Your task to perform on an android device: Clear the cart on newegg.com. Search for razer blade on newegg.com, select the first entry, add it to the cart, then select checkout. Image 0: 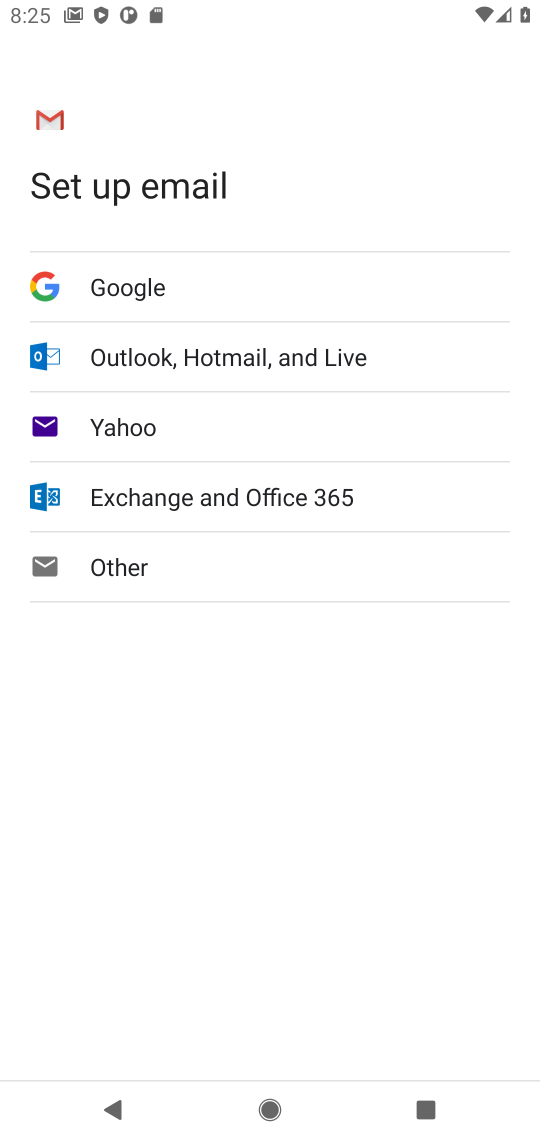
Step 0: press home button
Your task to perform on an android device: Clear the cart on newegg.com. Search for razer blade on newegg.com, select the first entry, add it to the cart, then select checkout. Image 1: 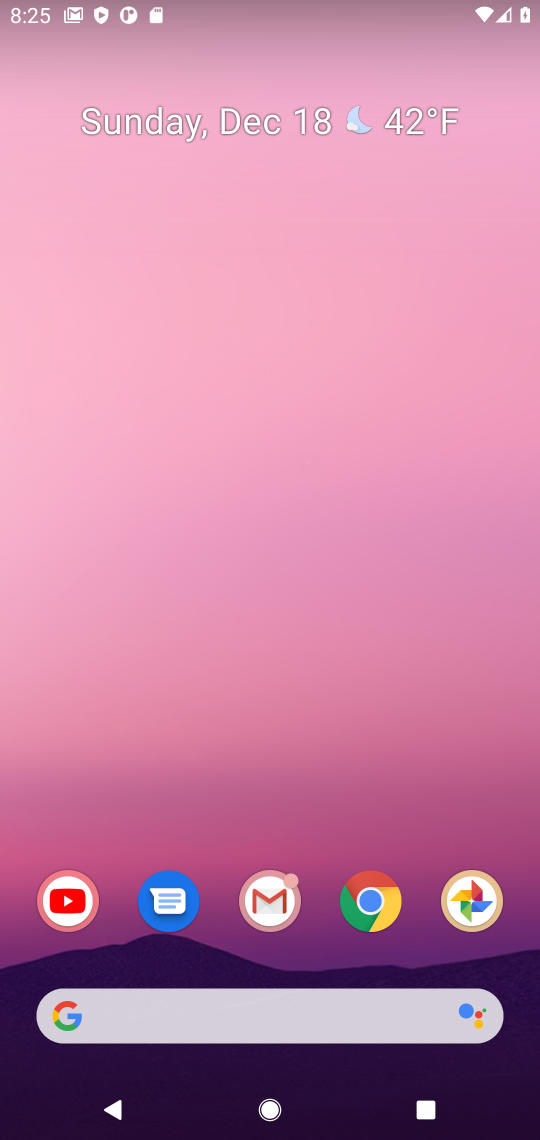
Step 1: click (335, 902)
Your task to perform on an android device: Clear the cart on newegg.com. Search for razer blade on newegg.com, select the first entry, add it to the cart, then select checkout. Image 2: 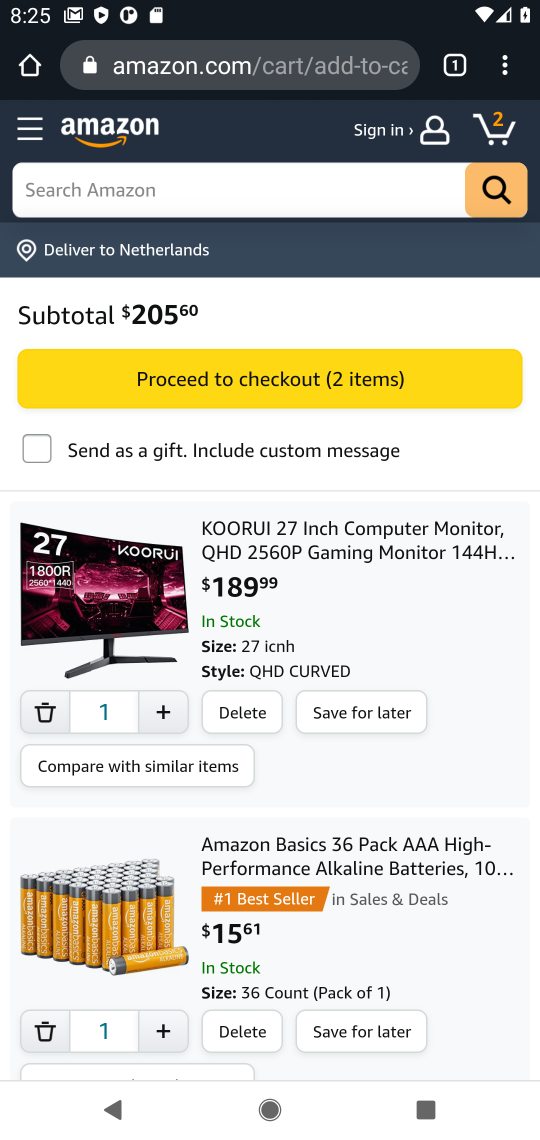
Step 2: click (96, 73)
Your task to perform on an android device: Clear the cart on newegg.com. Search for razer blade on newegg.com, select the first entry, add it to the cart, then select checkout. Image 3: 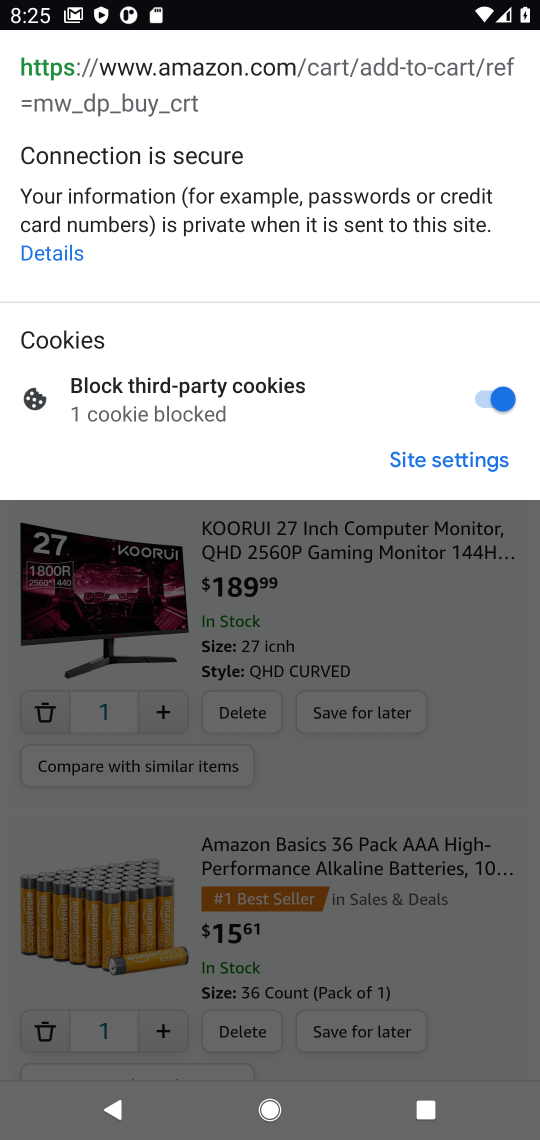
Step 3: type "newegg"
Your task to perform on an android device: Clear the cart on newegg.com. Search for razer blade on newegg.com, select the first entry, add it to the cart, then select checkout. Image 4: 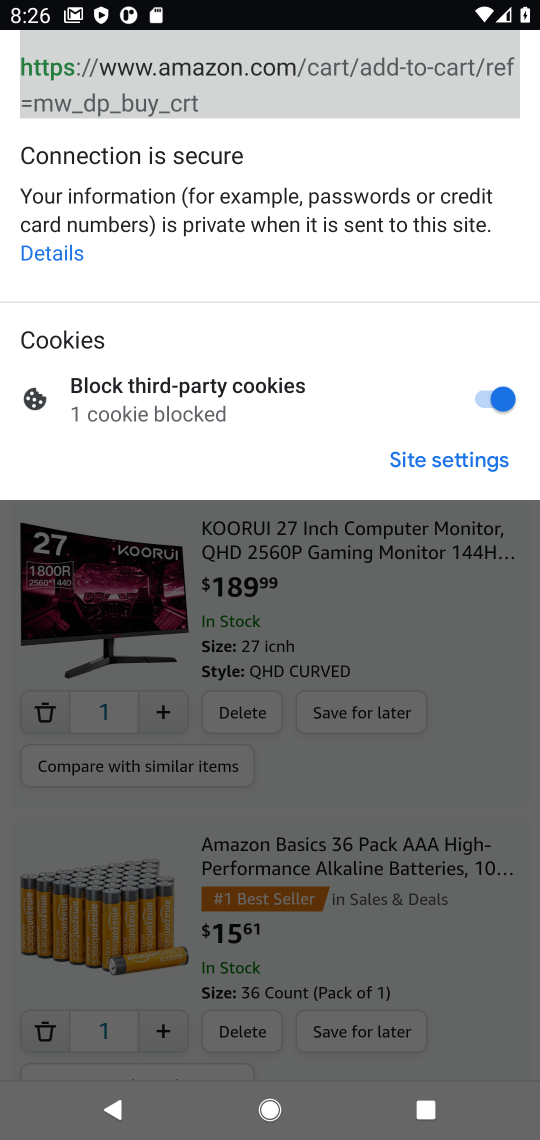
Step 4: press back button
Your task to perform on an android device: Clear the cart on newegg.com. Search for razer blade on newegg.com, select the first entry, add it to the cart, then select checkout. Image 5: 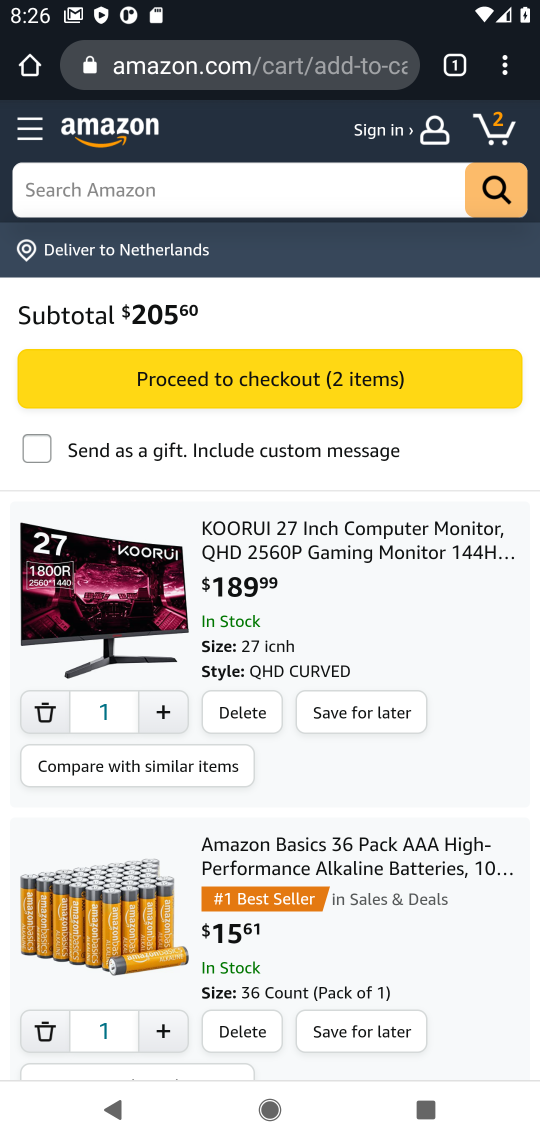
Step 5: click (220, 62)
Your task to perform on an android device: Clear the cart on newegg.com. Search for razer blade on newegg.com, select the first entry, add it to the cart, then select checkout. Image 6: 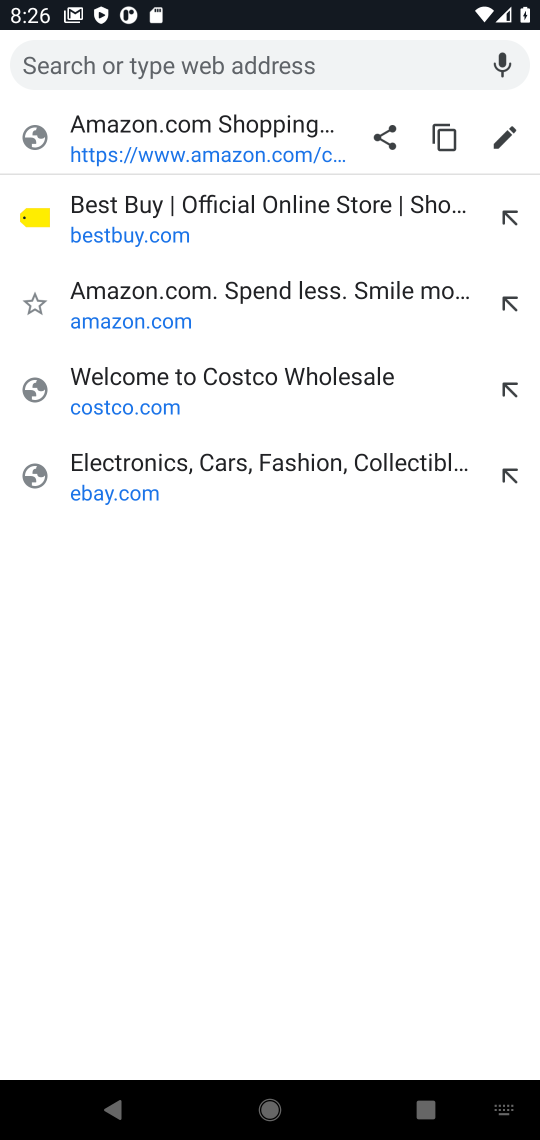
Step 6: type "newegg"
Your task to perform on an android device: Clear the cart on newegg.com. Search for razer blade on newegg.com, select the first entry, add it to the cart, then select checkout. Image 7: 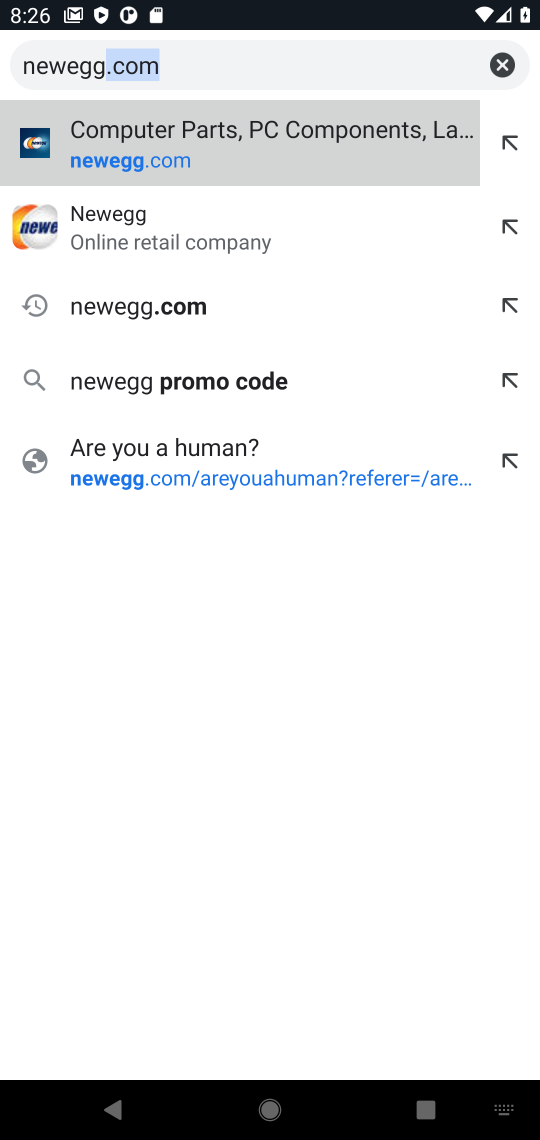
Step 7: click (185, 175)
Your task to perform on an android device: Clear the cart on newegg.com. Search for razer blade on newegg.com, select the first entry, add it to the cart, then select checkout. Image 8: 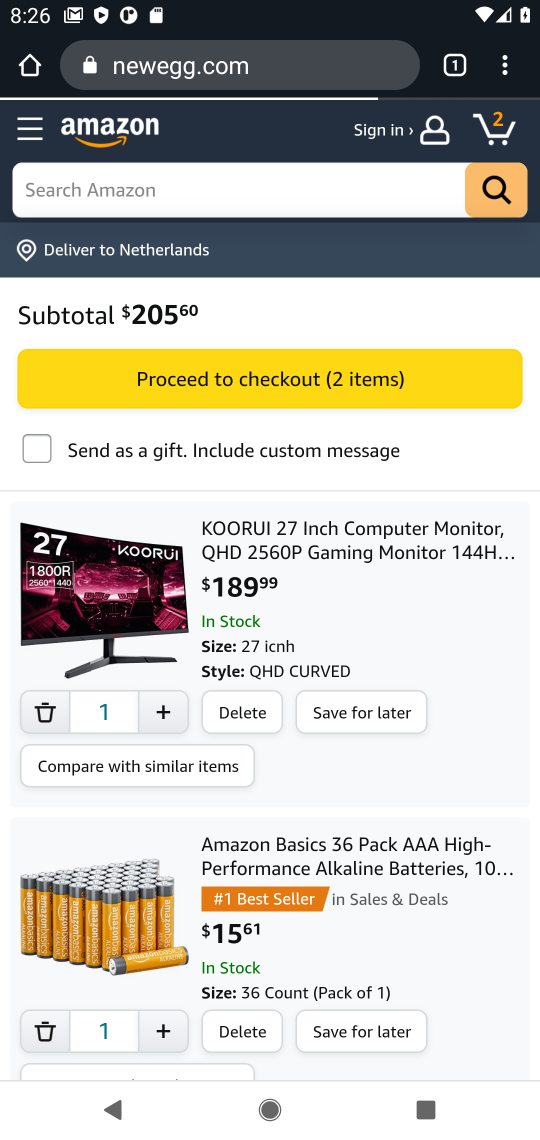
Step 8: click (144, 189)
Your task to perform on an android device: Clear the cart on newegg.com. Search for razer blade on newegg.com, select the first entry, add it to the cart, then select checkout. Image 9: 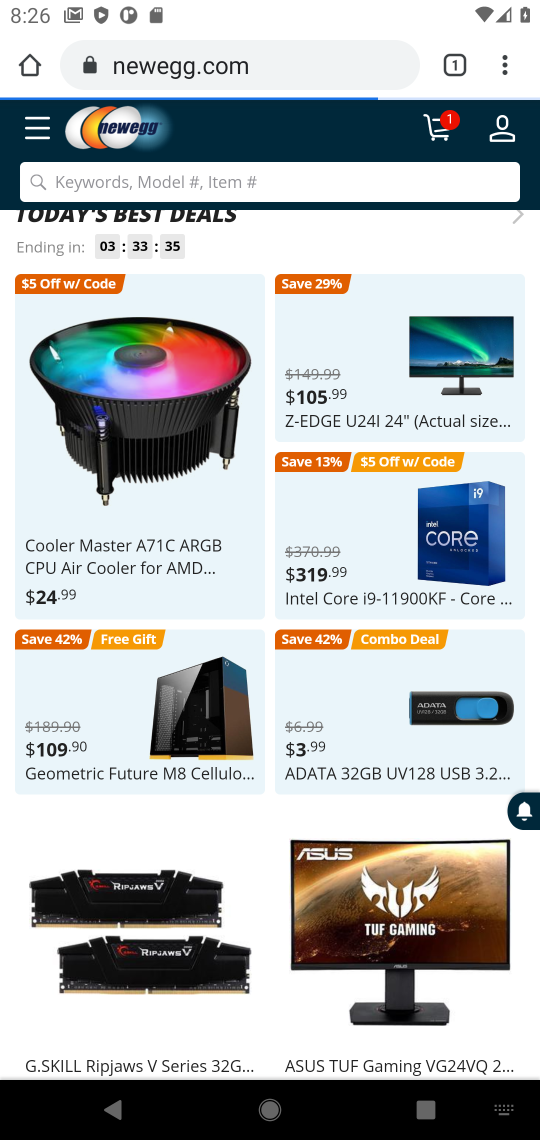
Step 9: click (144, 189)
Your task to perform on an android device: Clear the cart on newegg.com. Search for razer blade on newegg.com, select the first entry, add it to the cart, then select checkout. Image 10: 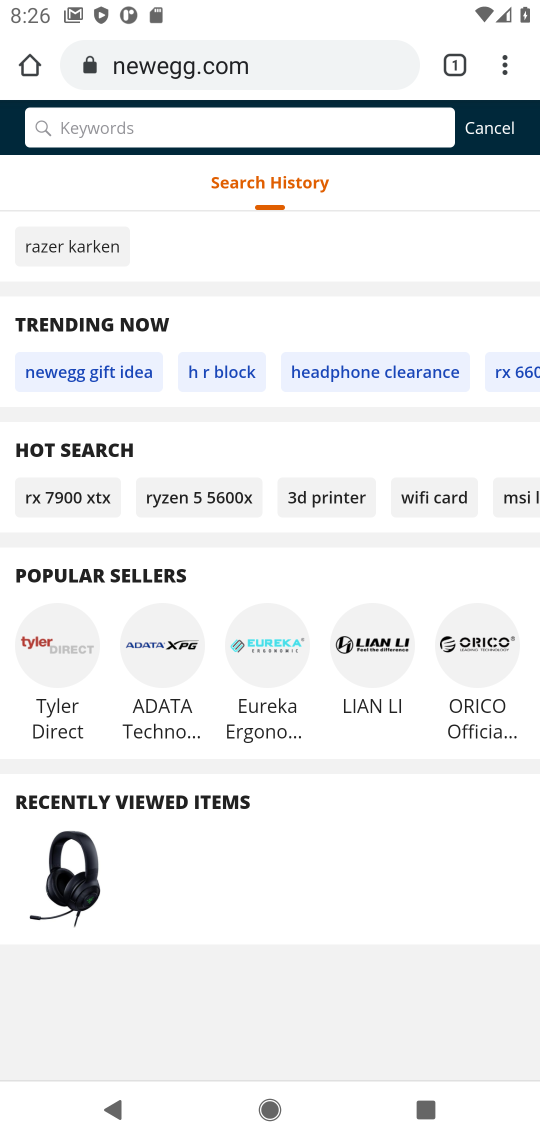
Step 10: type "razer blade"
Your task to perform on an android device: Clear the cart on newegg.com. Search for razer blade on newegg.com, select the first entry, add it to the cart, then select checkout. Image 11: 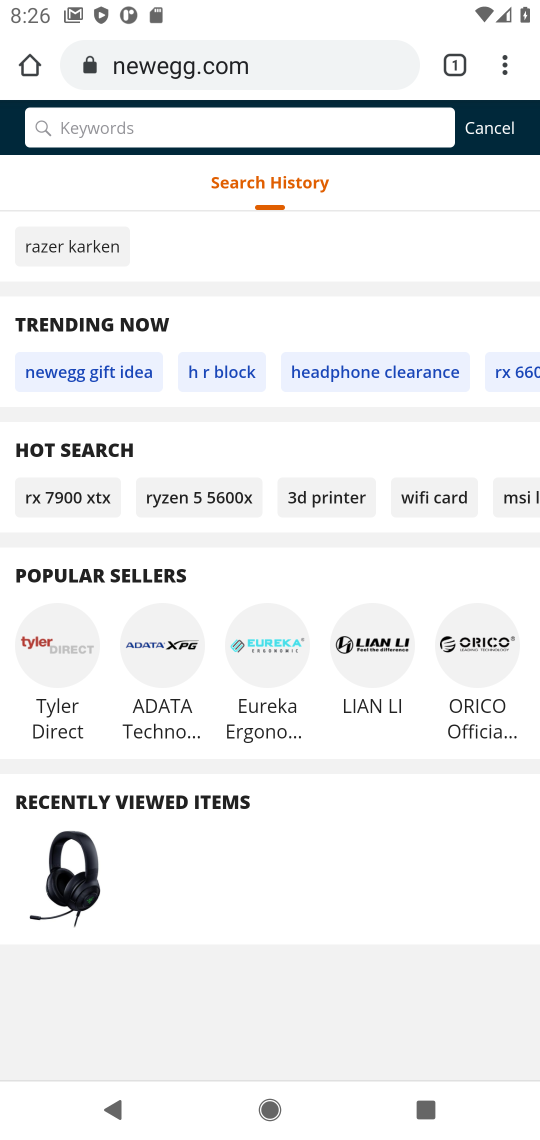
Step 11: click (120, 132)
Your task to perform on an android device: Clear the cart on newegg.com. Search for razer blade on newegg.com, select the first entry, add it to the cart, then select checkout. Image 12: 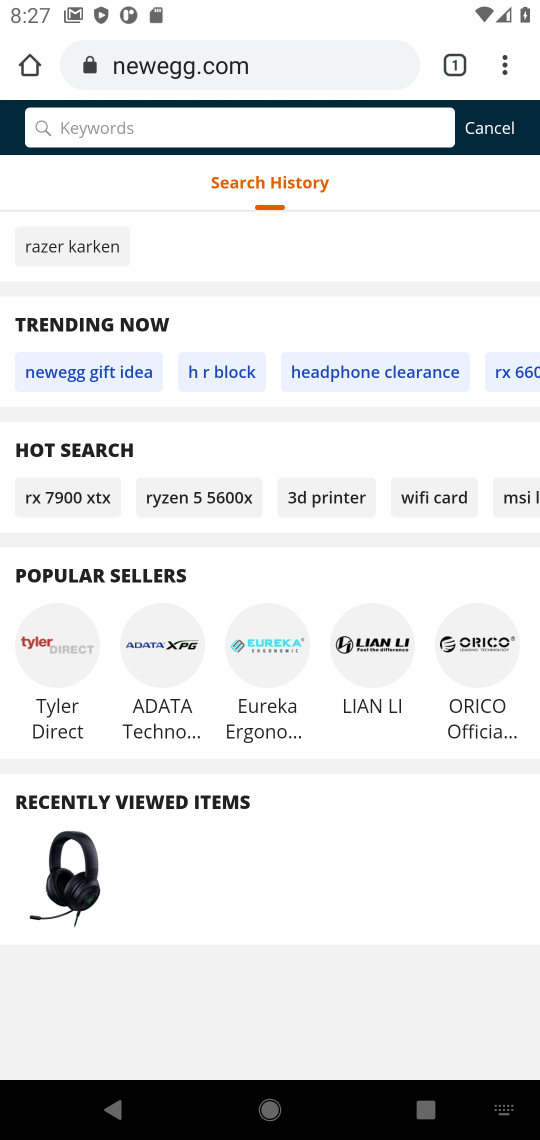
Step 12: type "razer blade"
Your task to perform on an android device: Clear the cart on newegg.com. Search for razer blade on newegg.com, select the first entry, add it to the cart, then select checkout. Image 13: 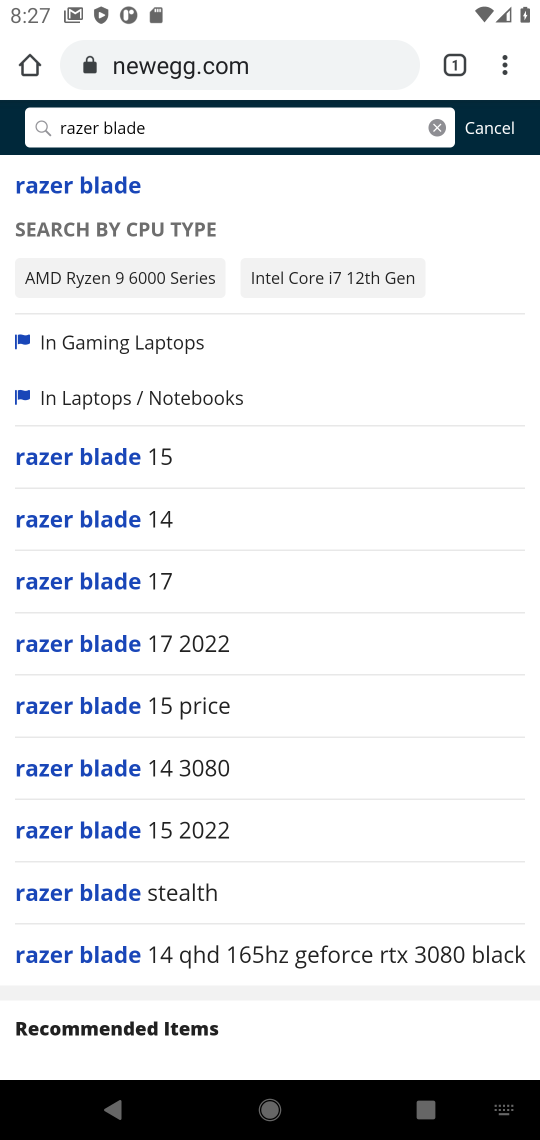
Step 13: click (71, 183)
Your task to perform on an android device: Clear the cart on newegg.com. Search for razer blade on newegg.com, select the first entry, add it to the cart, then select checkout. Image 14: 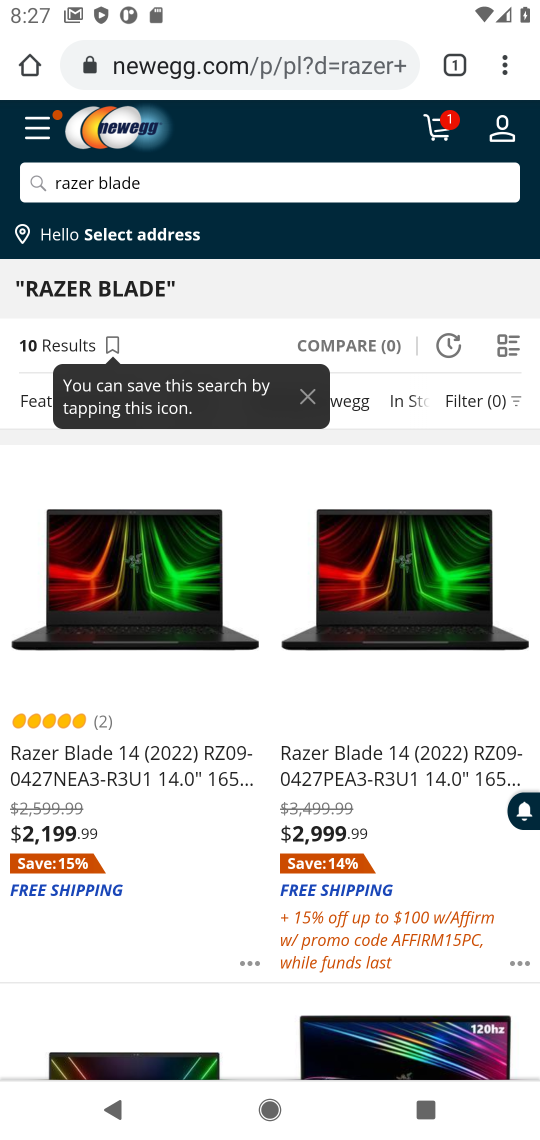
Step 14: click (93, 741)
Your task to perform on an android device: Clear the cart on newegg.com. Search for razer blade on newegg.com, select the first entry, add it to the cart, then select checkout. Image 15: 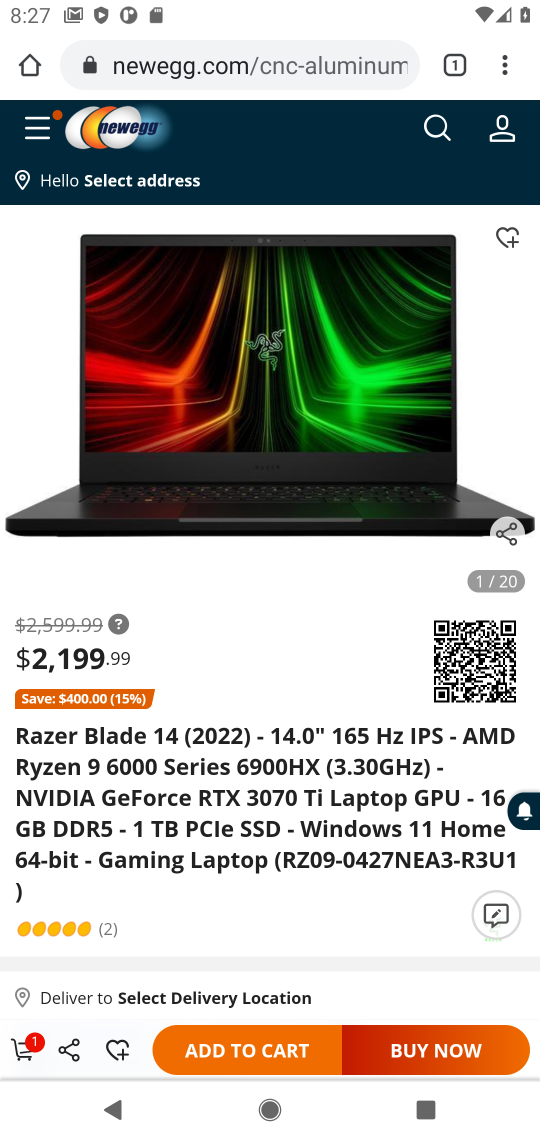
Step 15: click (270, 1024)
Your task to perform on an android device: Clear the cart on newegg.com. Search for razer blade on newegg.com, select the first entry, add it to the cart, then select checkout. Image 16: 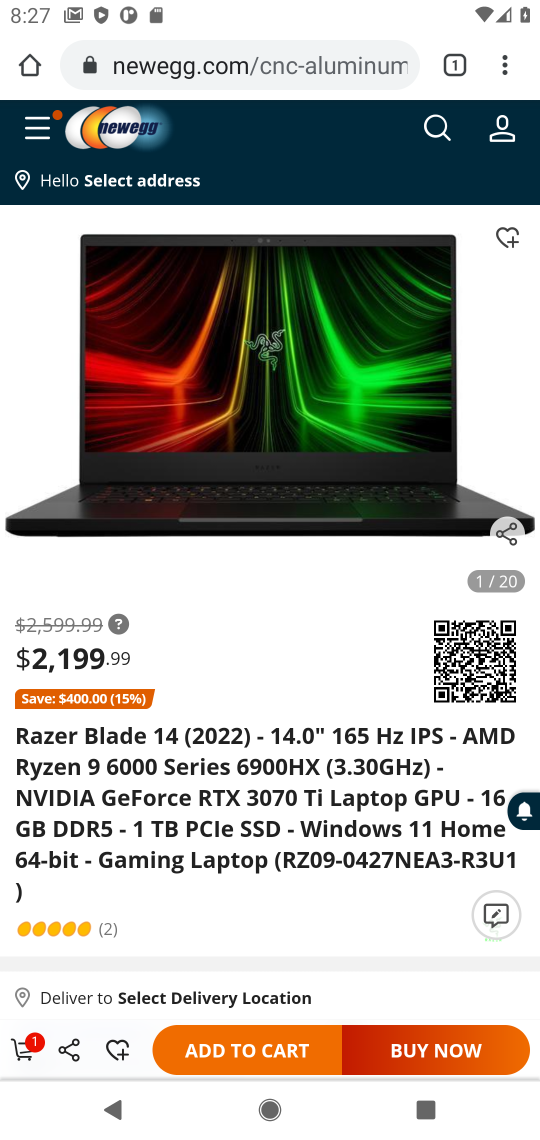
Step 16: click (237, 1039)
Your task to perform on an android device: Clear the cart on newegg.com. Search for razer blade on newegg.com, select the first entry, add it to the cart, then select checkout. Image 17: 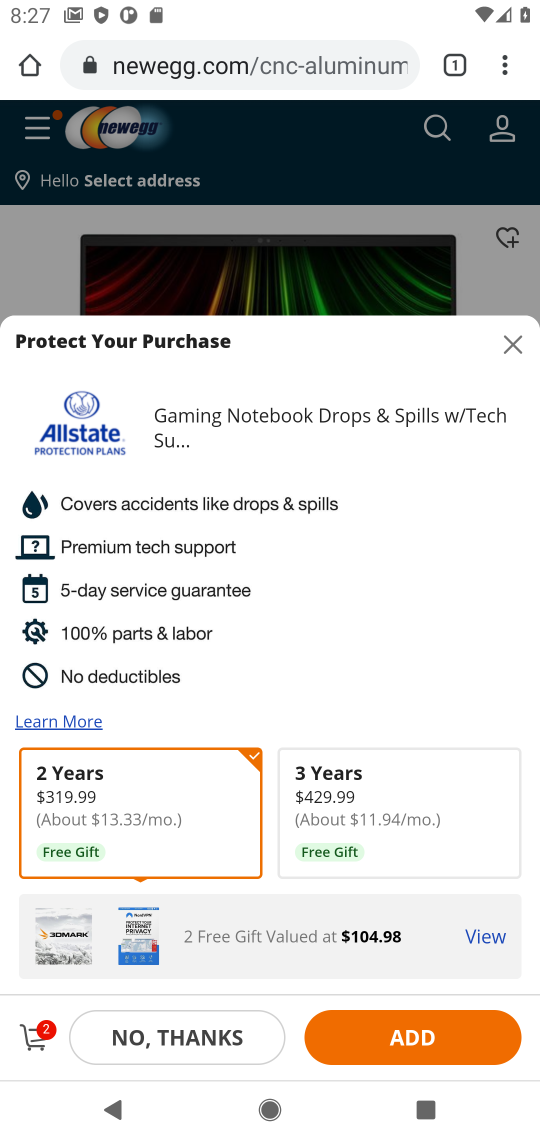
Step 17: task complete